Your task to perform on an android device: change the clock display to digital Image 0: 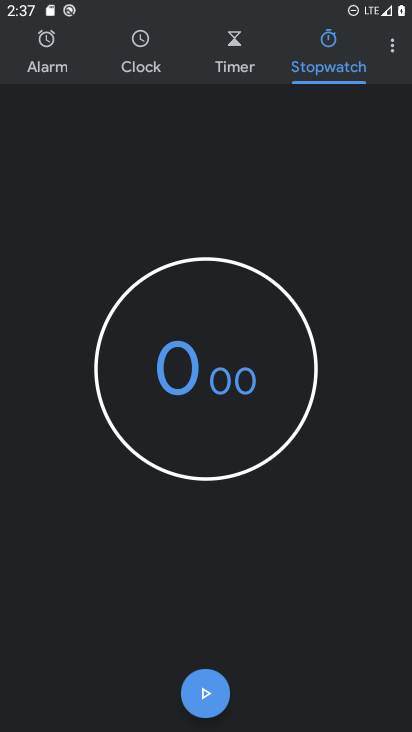
Step 0: press home button
Your task to perform on an android device: change the clock display to digital Image 1: 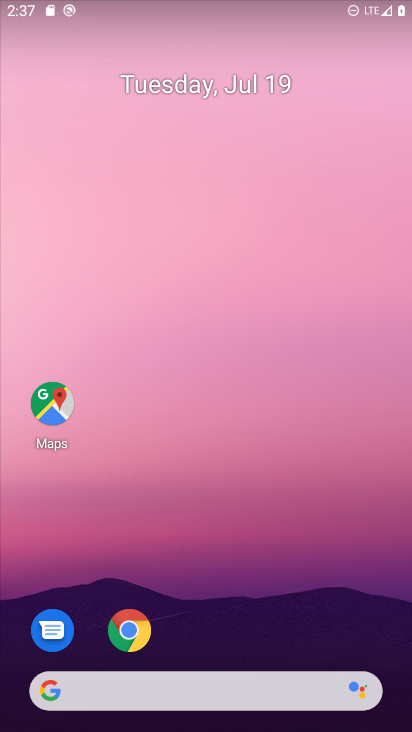
Step 1: drag from (376, 634) to (330, 120)
Your task to perform on an android device: change the clock display to digital Image 2: 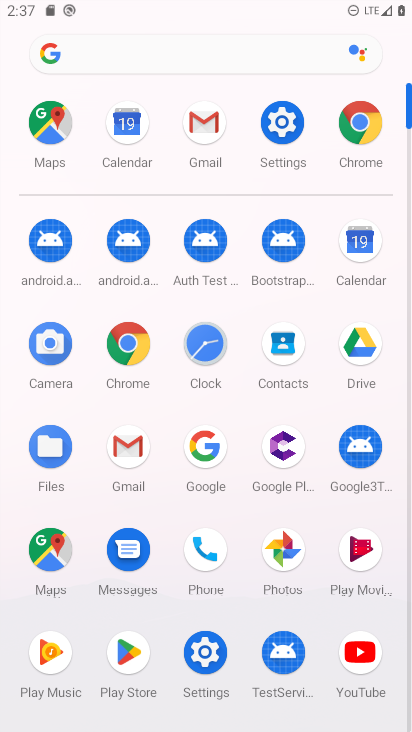
Step 2: click (205, 343)
Your task to perform on an android device: change the clock display to digital Image 3: 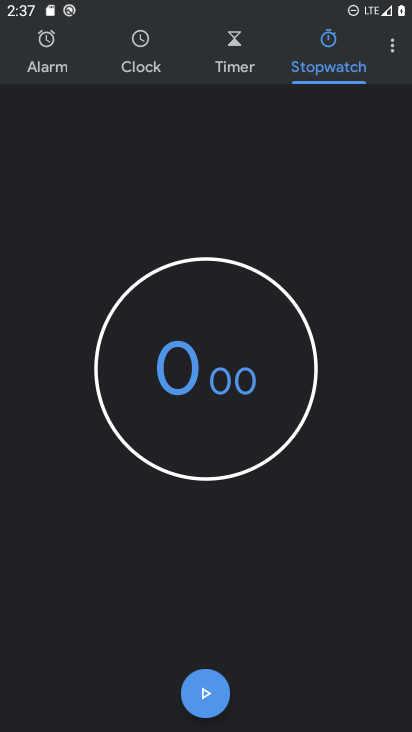
Step 3: click (391, 50)
Your task to perform on an android device: change the clock display to digital Image 4: 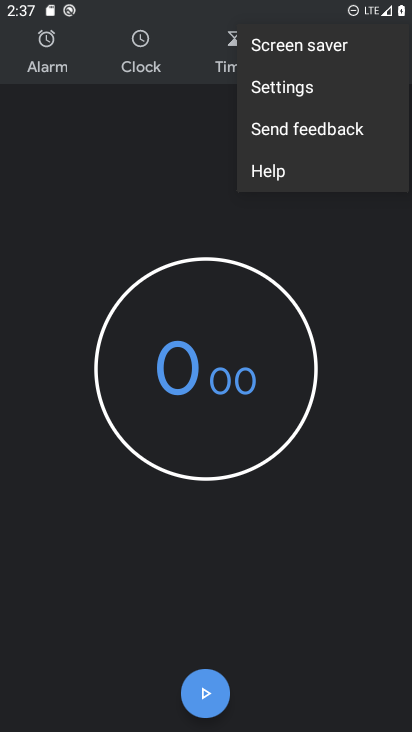
Step 4: click (270, 88)
Your task to perform on an android device: change the clock display to digital Image 5: 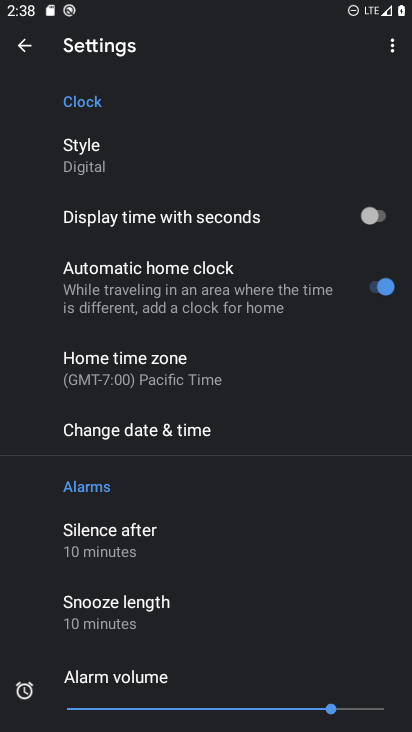
Step 5: task complete